Your task to perform on an android device: Check the news Image 0: 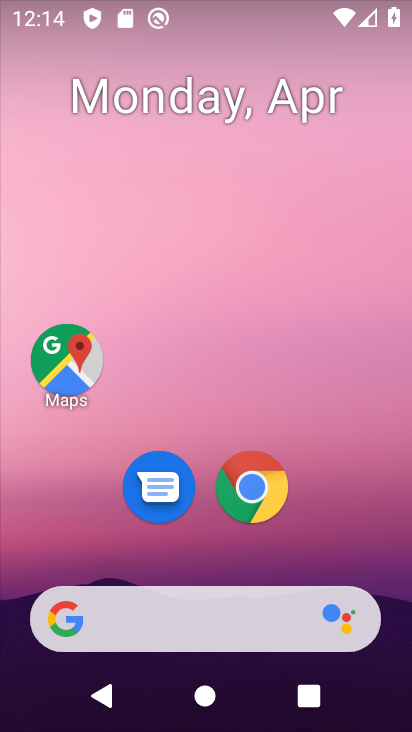
Step 0: drag from (406, 625) to (250, 34)
Your task to perform on an android device: Check the news Image 1: 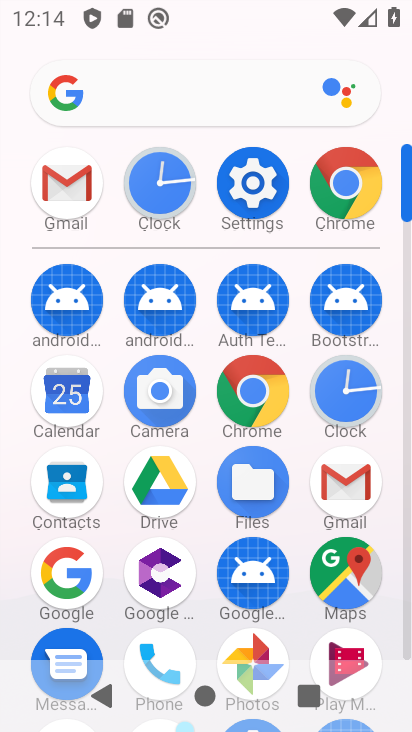
Step 1: click (249, 406)
Your task to perform on an android device: Check the news Image 2: 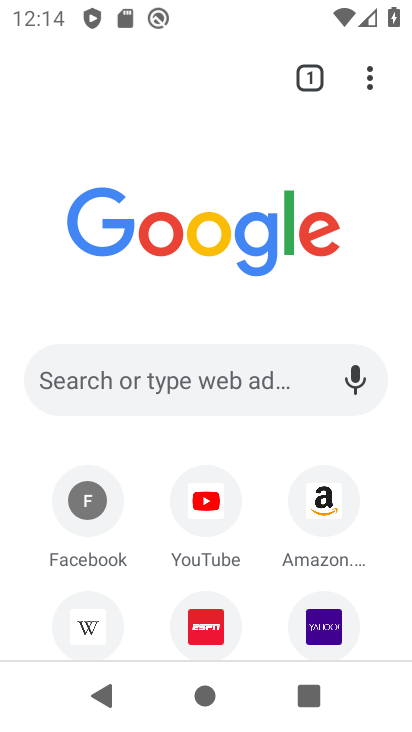
Step 2: drag from (146, 579) to (182, 92)
Your task to perform on an android device: Check the news Image 3: 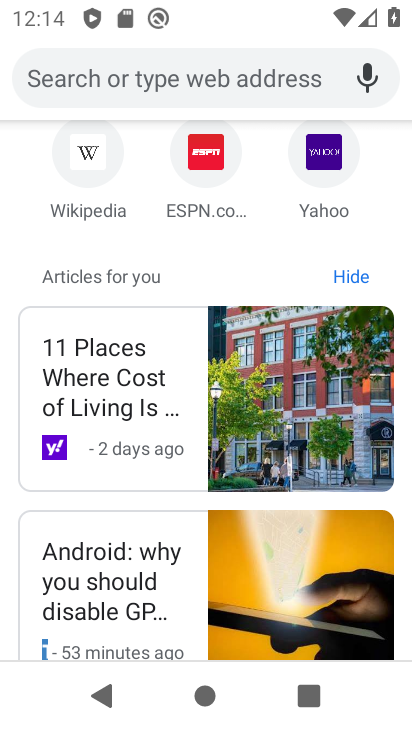
Step 3: click (141, 357)
Your task to perform on an android device: Check the news Image 4: 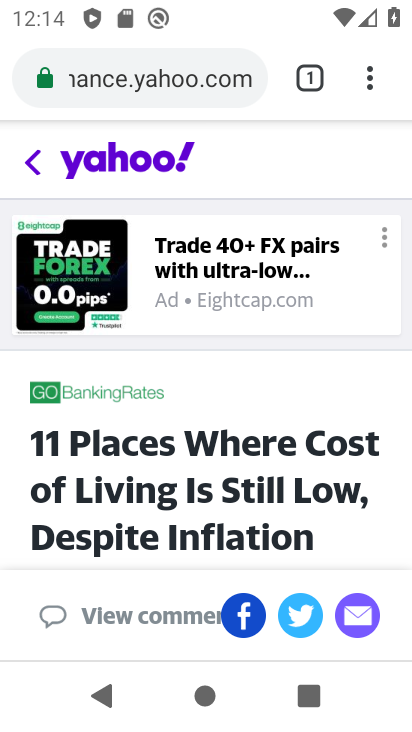
Step 4: task complete